Your task to perform on an android device: Show me the alarms in the clock app Image 0: 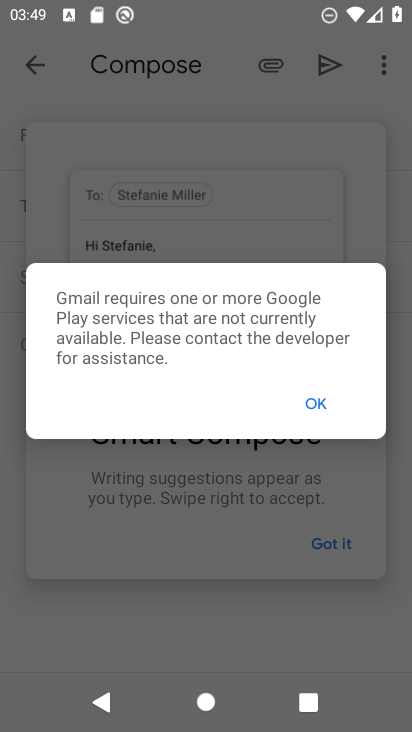
Step 0: press home button
Your task to perform on an android device: Show me the alarms in the clock app Image 1: 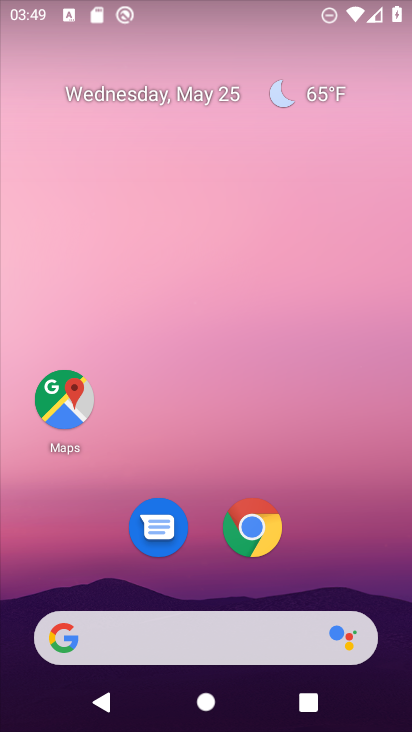
Step 1: drag from (316, 647) to (408, 491)
Your task to perform on an android device: Show me the alarms in the clock app Image 2: 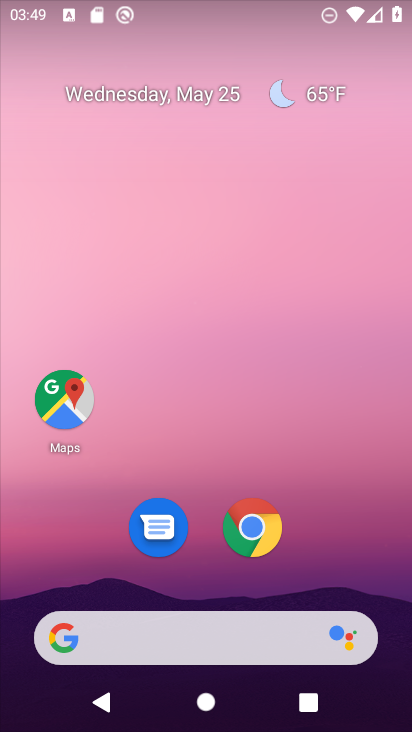
Step 2: click (354, 388)
Your task to perform on an android device: Show me the alarms in the clock app Image 3: 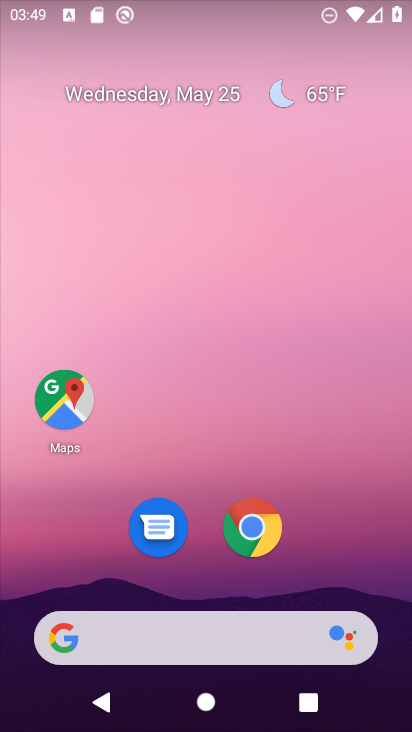
Step 3: drag from (328, 598) to (329, 48)
Your task to perform on an android device: Show me the alarms in the clock app Image 4: 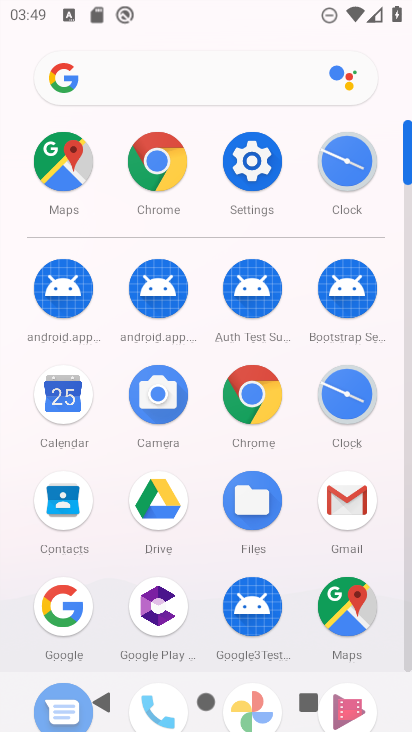
Step 4: click (338, 402)
Your task to perform on an android device: Show me the alarms in the clock app Image 5: 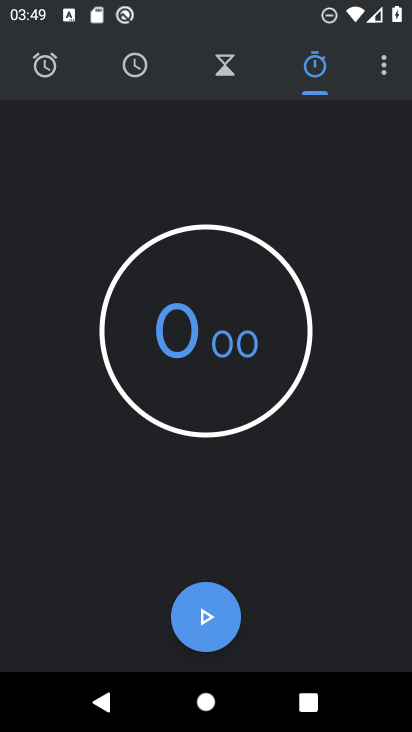
Step 5: click (35, 74)
Your task to perform on an android device: Show me the alarms in the clock app Image 6: 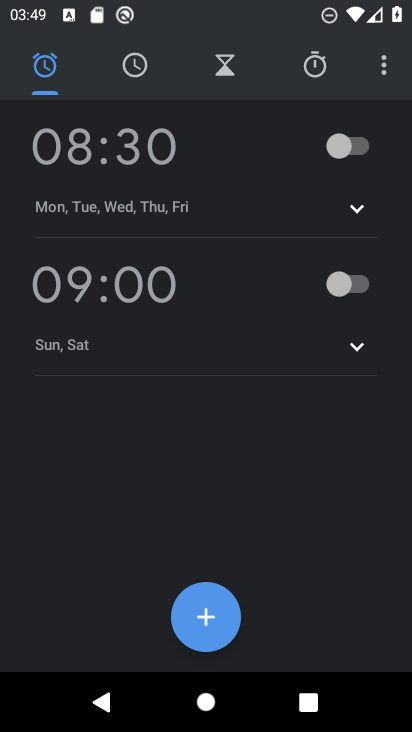
Step 6: click (361, 141)
Your task to perform on an android device: Show me the alarms in the clock app Image 7: 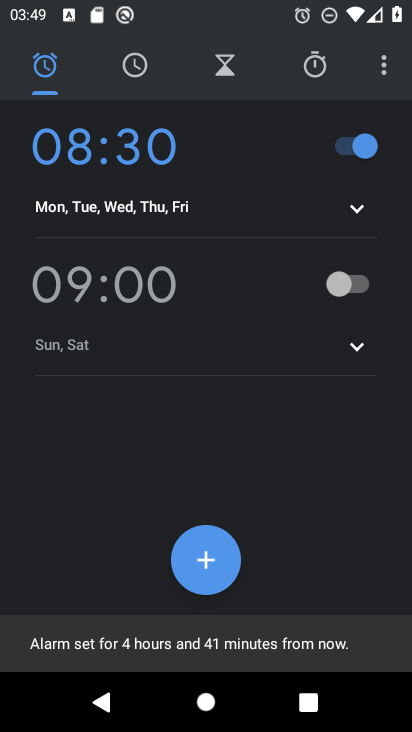
Step 7: task complete